Your task to perform on an android device: Open Google Maps and go to "Timeline" Image 0: 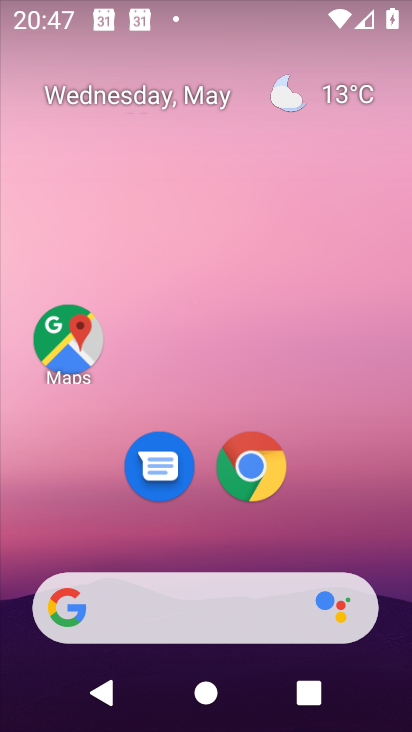
Step 0: drag from (209, 415) to (248, 0)
Your task to perform on an android device: Open Google Maps and go to "Timeline" Image 1: 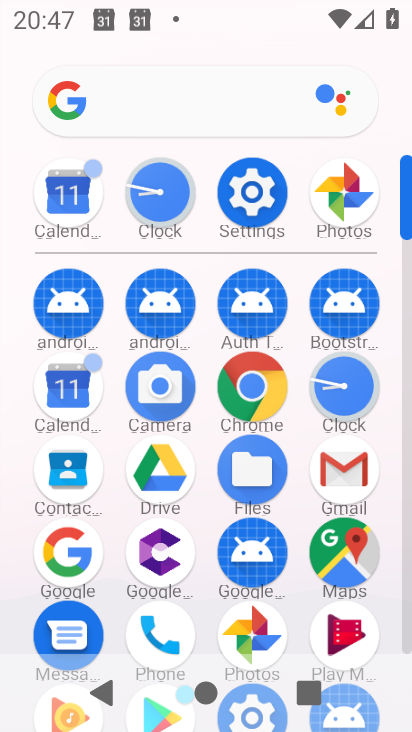
Step 1: click (339, 555)
Your task to perform on an android device: Open Google Maps and go to "Timeline" Image 2: 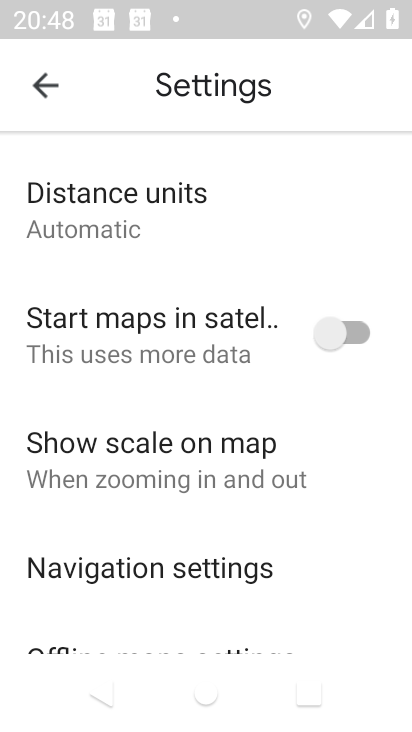
Step 2: click (52, 92)
Your task to perform on an android device: Open Google Maps and go to "Timeline" Image 3: 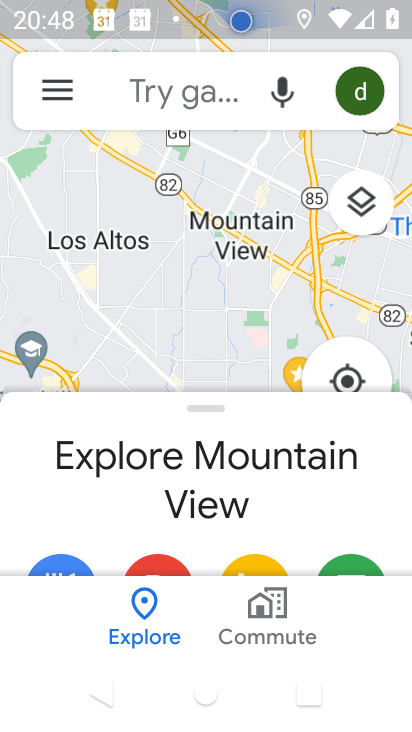
Step 3: click (48, 89)
Your task to perform on an android device: Open Google Maps and go to "Timeline" Image 4: 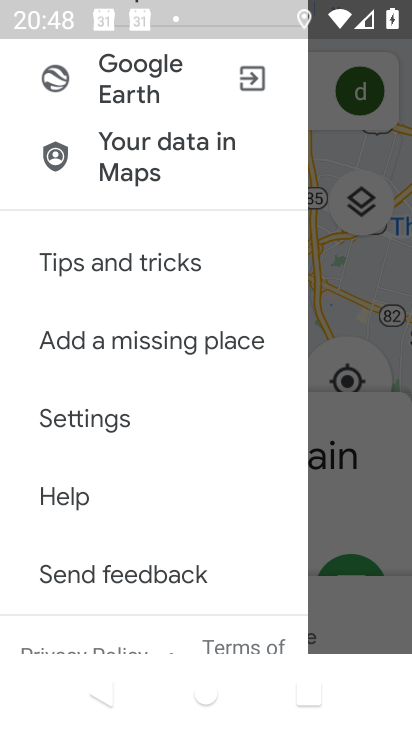
Step 4: drag from (130, 120) to (149, 657)
Your task to perform on an android device: Open Google Maps and go to "Timeline" Image 5: 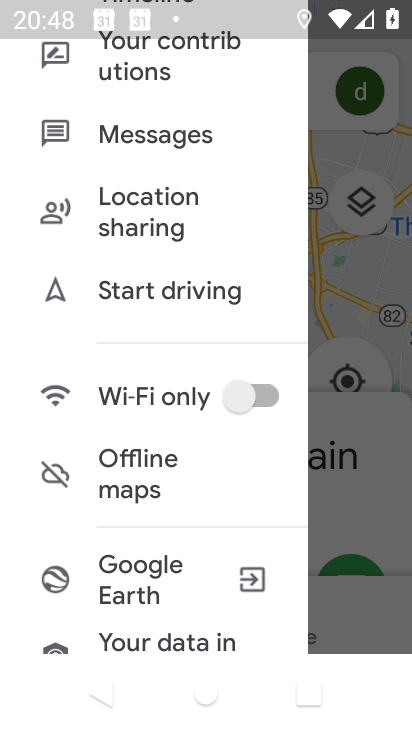
Step 5: drag from (152, 102) to (128, 650)
Your task to perform on an android device: Open Google Maps and go to "Timeline" Image 6: 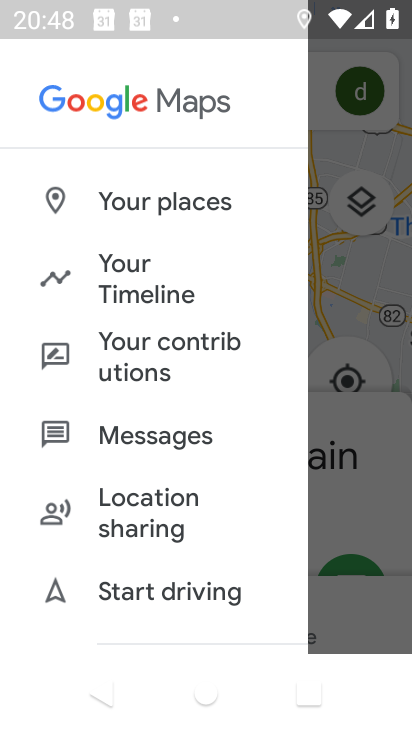
Step 6: click (158, 269)
Your task to perform on an android device: Open Google Maps and go to "Timeline" Image 7: 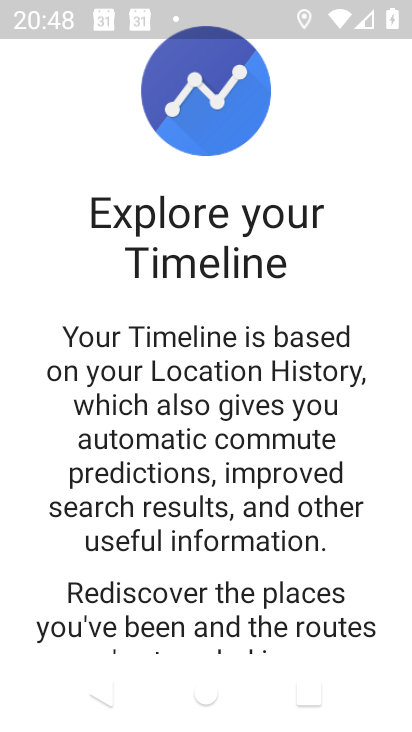
Step 7: drag from (224, 600) to (243, 196)
Your task to perform on an android device: Open Google Maps and go to "Timeline" Image 8: 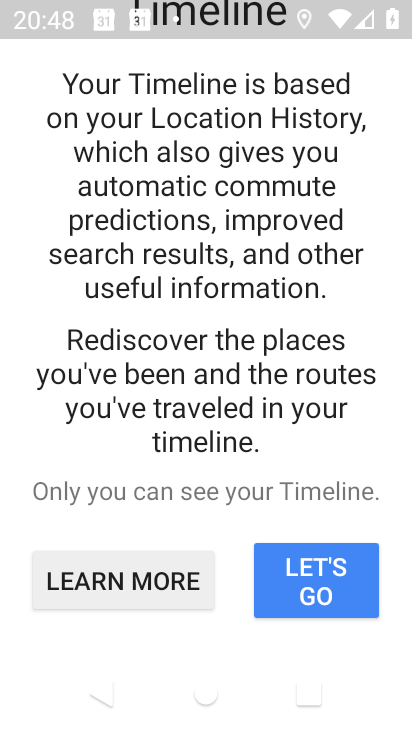
Step 8: click (312, 577)
Your task to perform on an android device: Open Google Maps and go to "Timeline" Image 9: 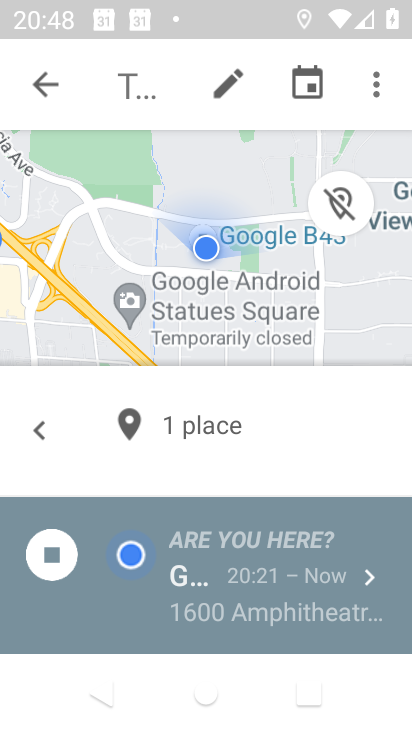
Step 9: task complete